Your task to perform on an android device: open chrome and create a bookmark for the current page Image 0: 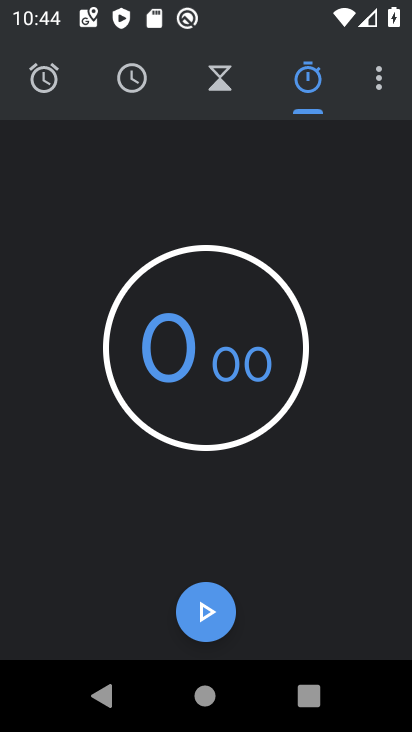
Step 0: press home button
Your task to perform on an android device: open chrome and create a bookmark for the current page Image 1: 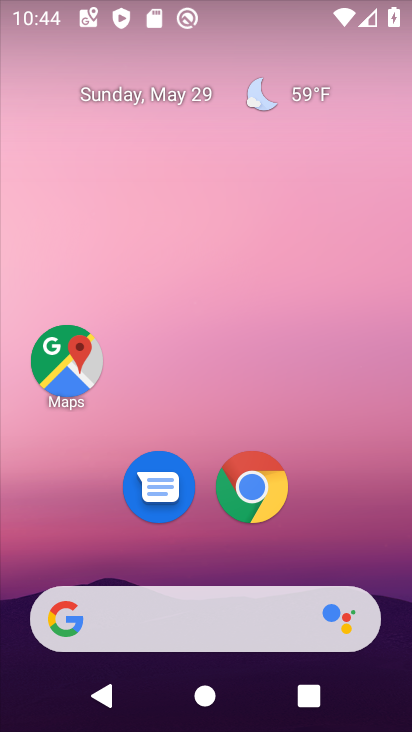
Step 1: click (248, 486)
Your task to perform on an android device: open chrome and create a bookmark for the current page Image 2: 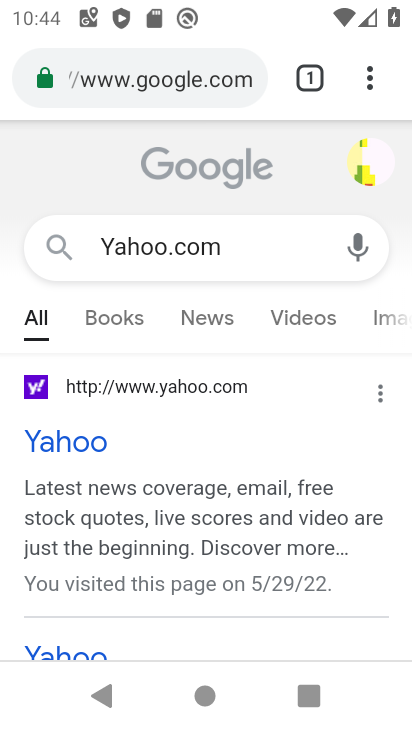
Step 2: click (366, 73)
Your task to perform on an android device: open chrome and create a bookmark for the current page Image 3: 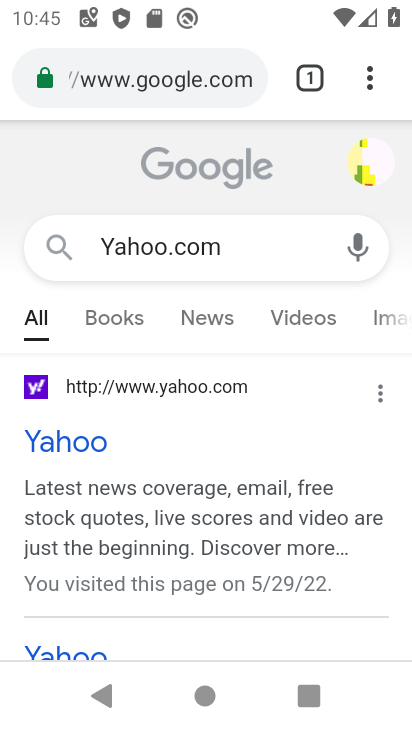
Step 3: click (367, 77)
Your task to perform on an android device: open chrome and create a bookmark for the current page Image 4: 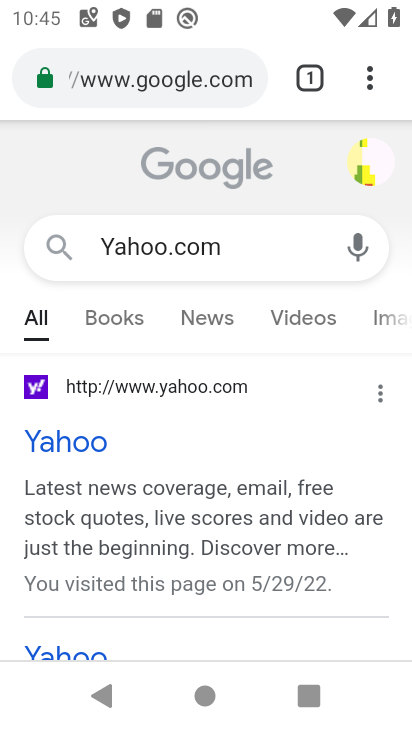
Step 4: click (371, 74)
Your task to perform on an android device: open chrome and create a bookmark for the current page Image 5: 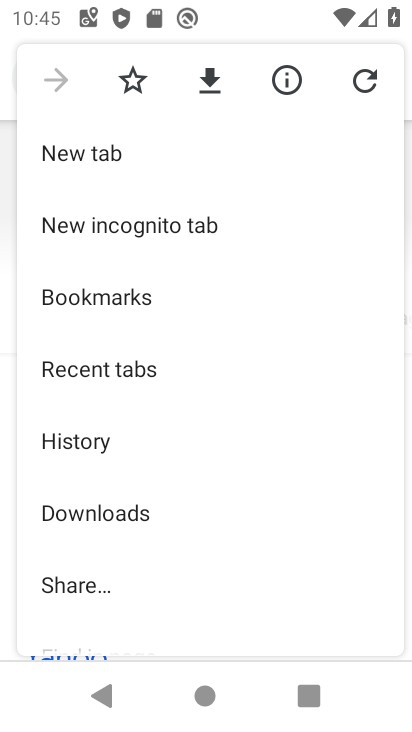
Step 5: drag from (273, 591) to (274, 318)
Your task to perform on an android device: open chrome and create a bookmark for the current page Image 6: 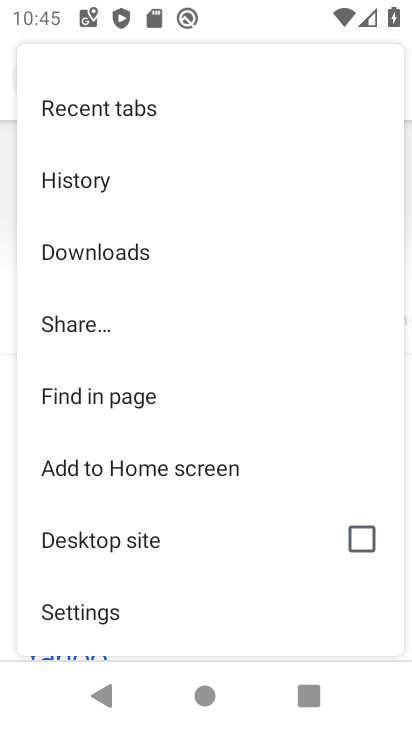
Step 6: drag from (271, 147) to (301, 453)
Your task to perform on an android device: open chrome and create a bookmark for the current page Image 7: 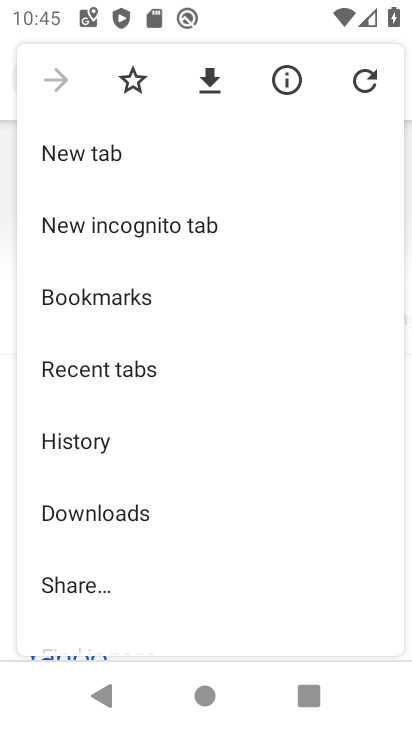
Step 7: click (90, 300)
Your task to perform on an android device: open chrome and create a bookmark for the current page Image 8: 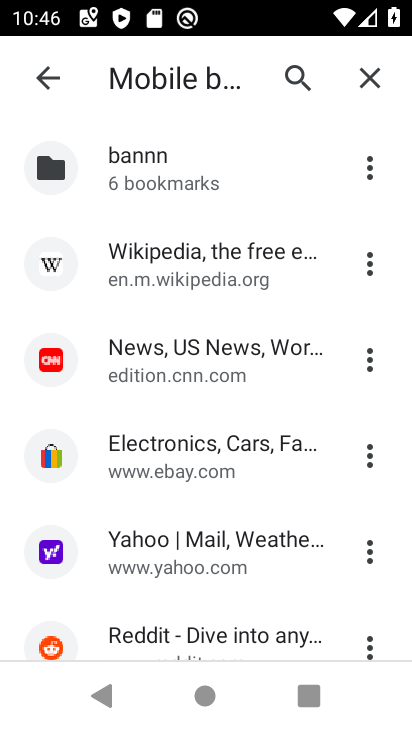
Step 8: click (52, 81)
Your task to perform on an android device: open chrome and create a bookmark for the current page Image 9: 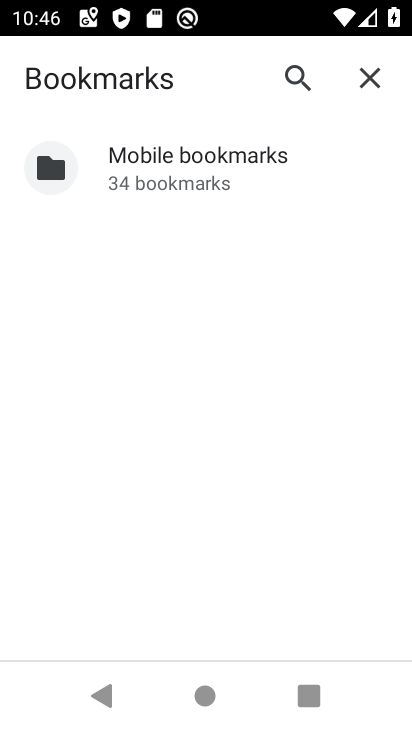
Step 9: press back button
Your task to perform on an android device: open chrome and create a bookmark for the current page Image 10: 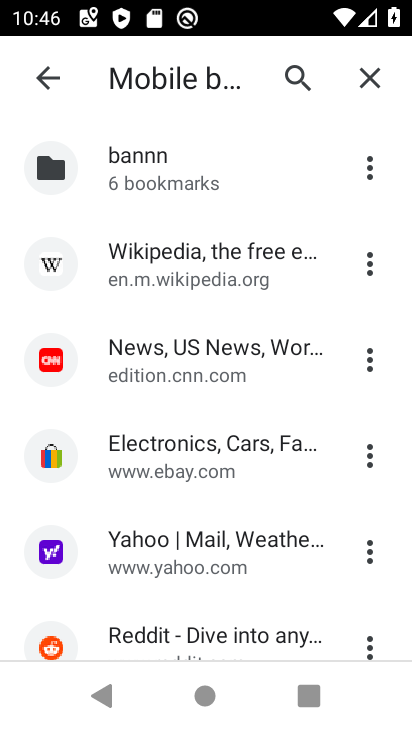
Step 10: press back button
Your task to perform on an android device: open chrome and create a bookmark for the current page Image 11: 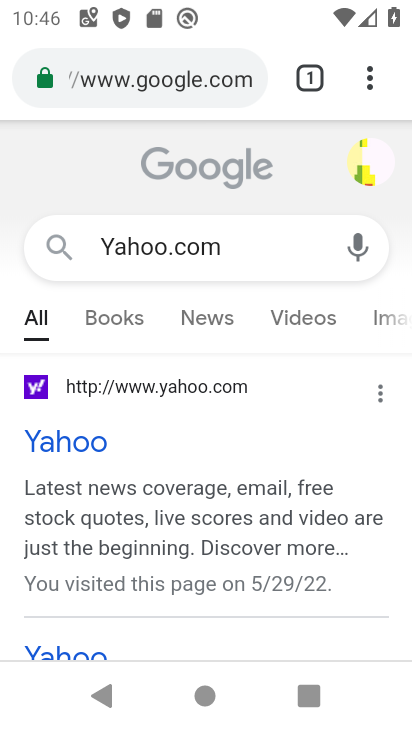
Step 11: click (365, 77)
Your task to perform on an android device: open chrome and create a bookmark for the current page Image 12: 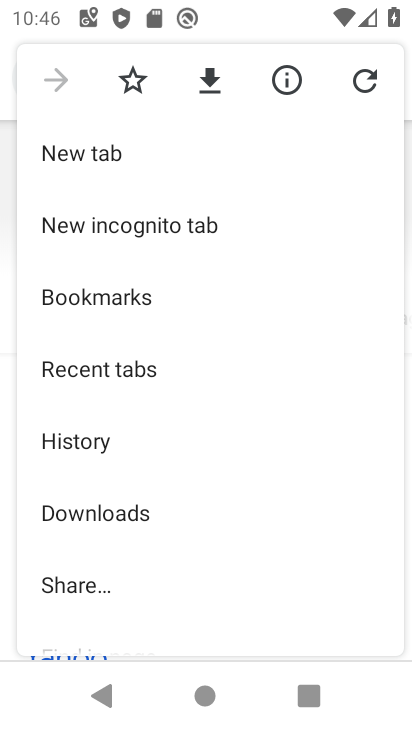
Step 12: click (129, 77)
Your task to perform on an android device: open chrome and create a bookmark for the current page Image 13: 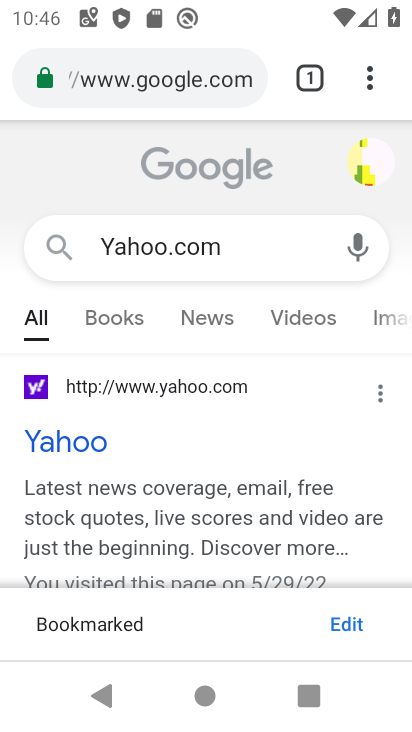
Step 13: task complete